Your task to perform on an android device: Open accessibility settings Image 0: 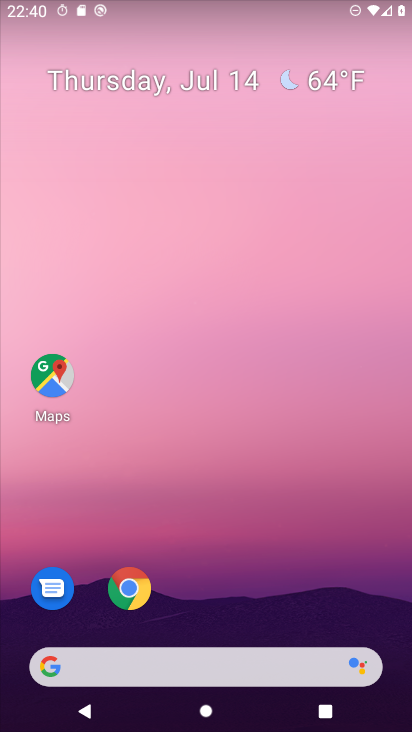
Step 0: drag from (330, 529) to (358, 44)
Your task to perform on an android device: Open accessibility settings Image 1: 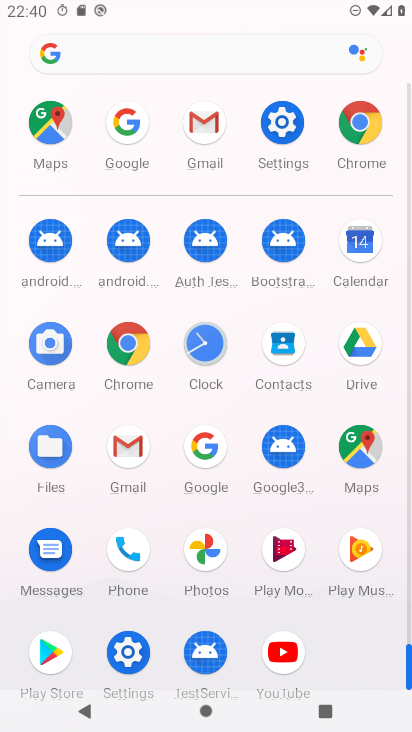
Step 1: click (284, 118)
Your task to perform on an android device: Open accessibility settings Image 2: 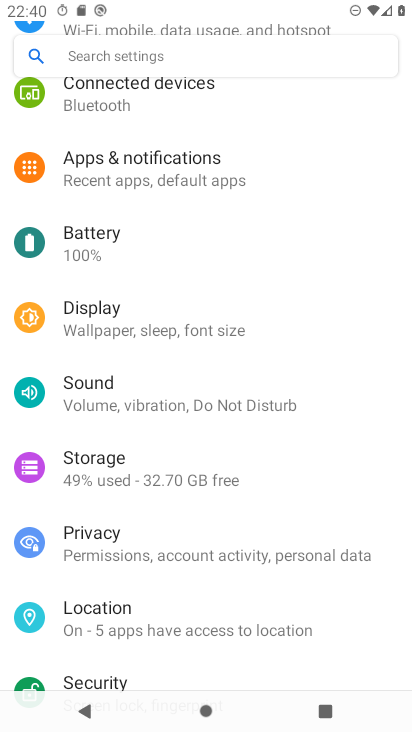
Step 2: drag from (348, 168) to (351, 283)
Your task to perform on an android device: Open accessibility settings Image 3: 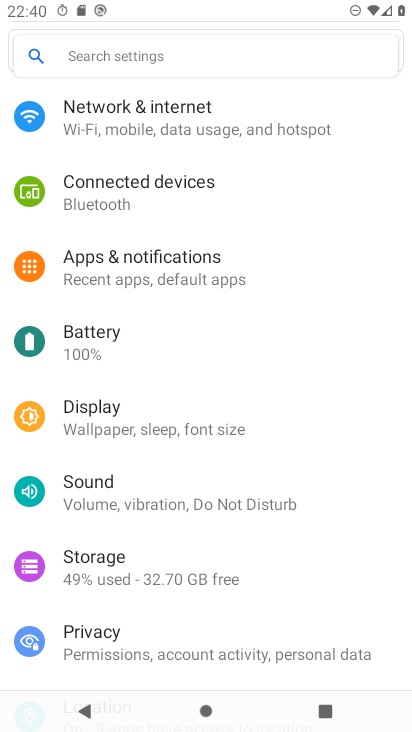
Step 3: drag from (364, 198) to (364, 335)
Your task to perform on an android device: Open accessibility settings Image 4: 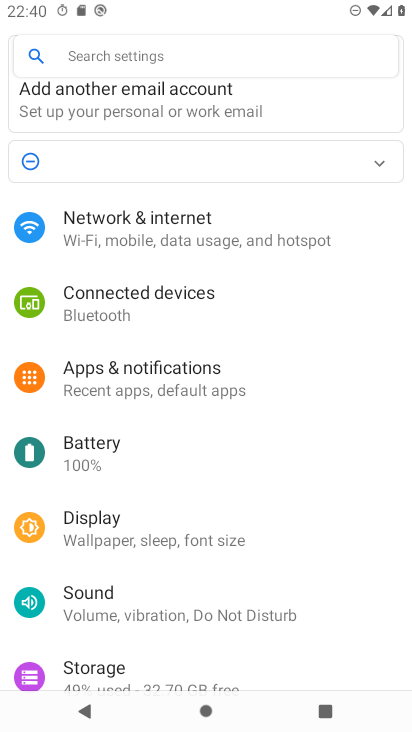
Step 4: drag from (346, 377) to (360, 278)
Your task to perform on an android device: Open accessibility settings Image 5: 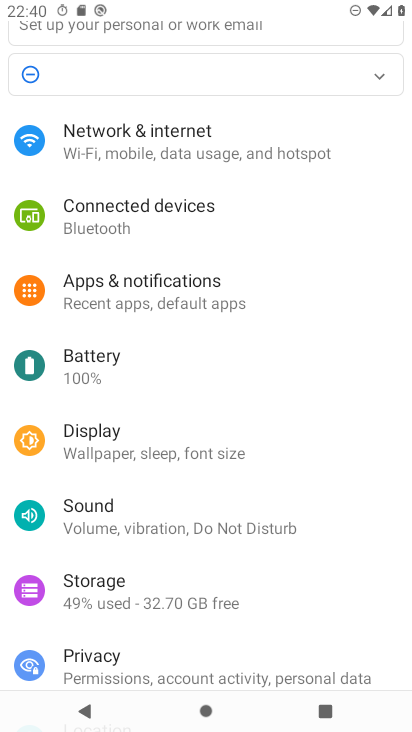
Step 5: drag from (351, 395) to (368, 273)
Your task to perform on an android device: Open accessibility settings Image 6: 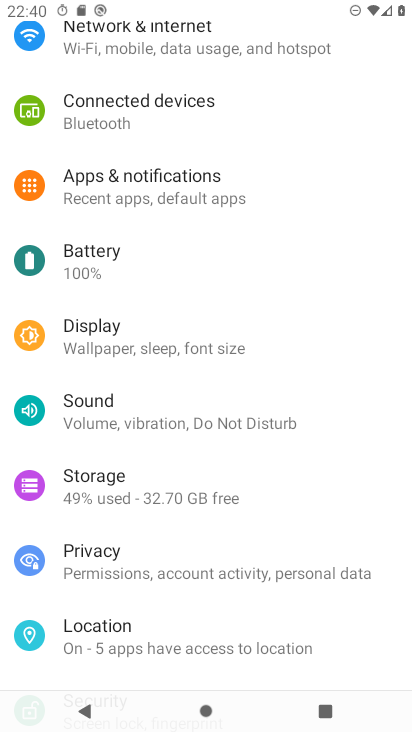
Step 6: drag from (361, 378) to (369, 301)
Your task to perform on an android device: Open accessibility settings Image 7: 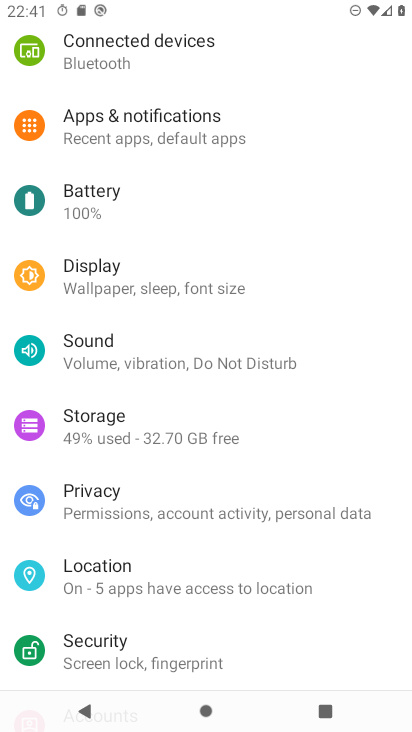
Step 7: drag from (354, 394) to (351, 280)
Your task to perform on an android device: Open accessibility settings Image 8: 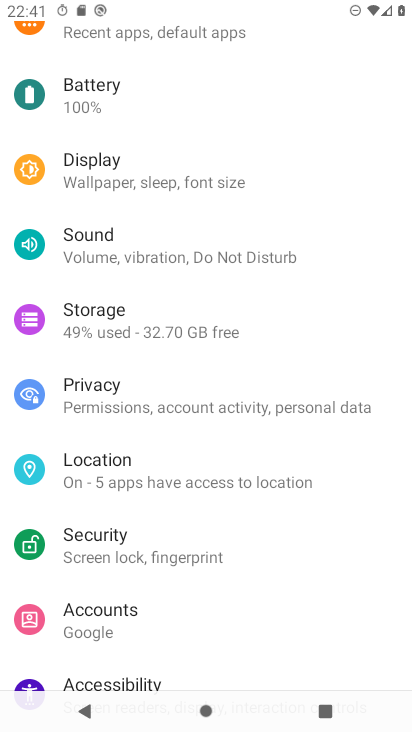
Step 8: drag from (351, 361) to (353, 263)
Your task to perform on an android device: Open accessibility settings Image 9: 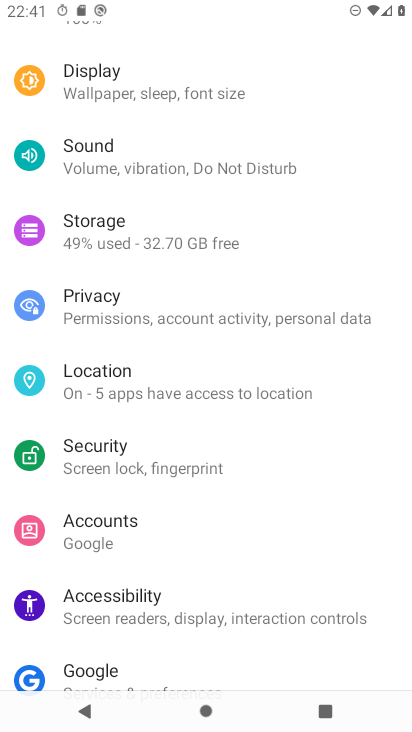
Step 9: drag from (354, 410) to (354, 300)
Your task to perform on an android device: Open accessibility settings Image 10: 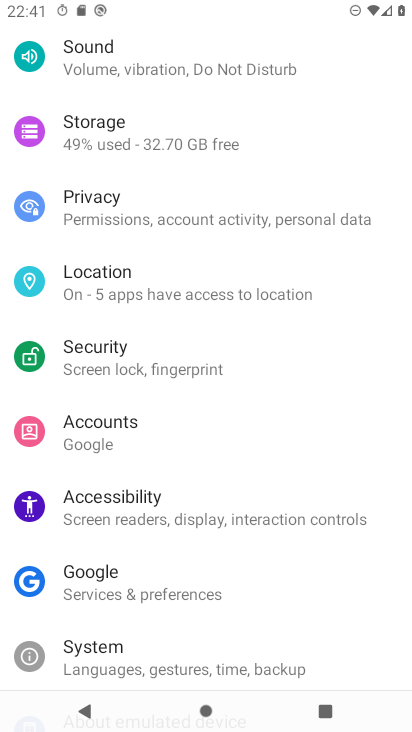
Step 10: drag from (360, 424) to (363, 326)
Your task to perform on an android device: Open accessibility settings Image 11: 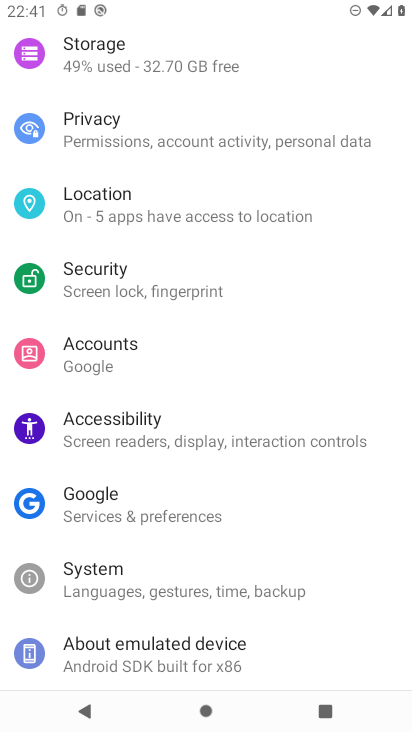
Step 11: drag from (341, 488) to (352, 364)
Your task to perform on an android device: Open accessibility settings Image 12: 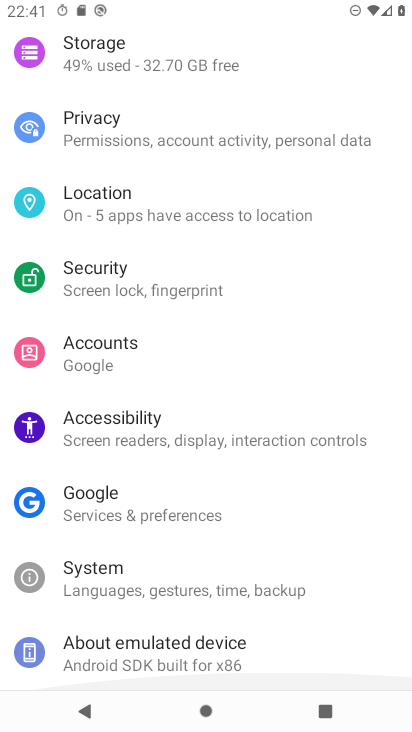
Step 12: click (329, 444)
Your task to perform on an android device: Open accessibility settings Image 13: 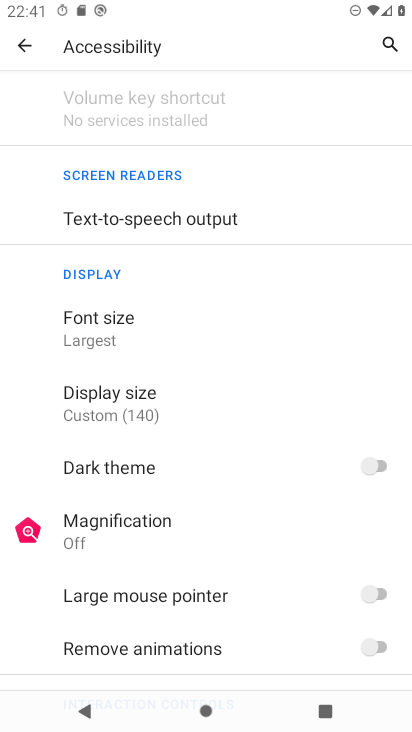
Step 13: task complete